Your task to perform on an android device: Show me popular videos on Youtube Image 0: 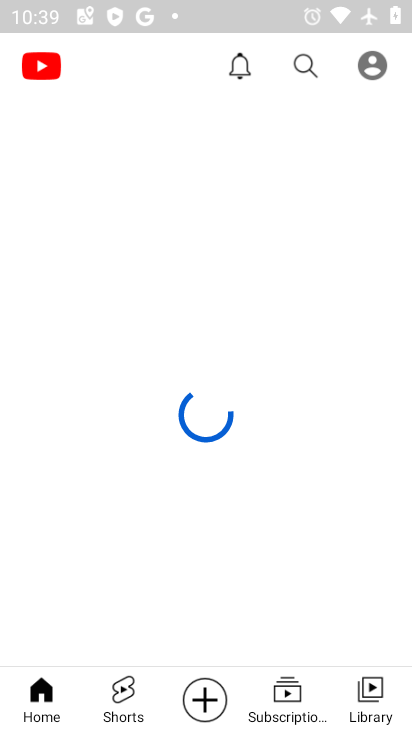
Step 0: press home button
Your task to perform on an android device: Show me popular videos on Youtube Image 1: 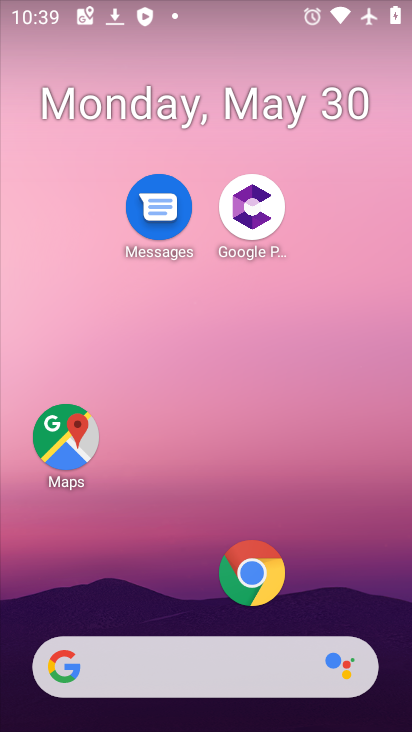
Step 1: drag from (188, 589) to (295, 62)
Your task to perform on an android device: Show me popular videos on Youtube Image 2: 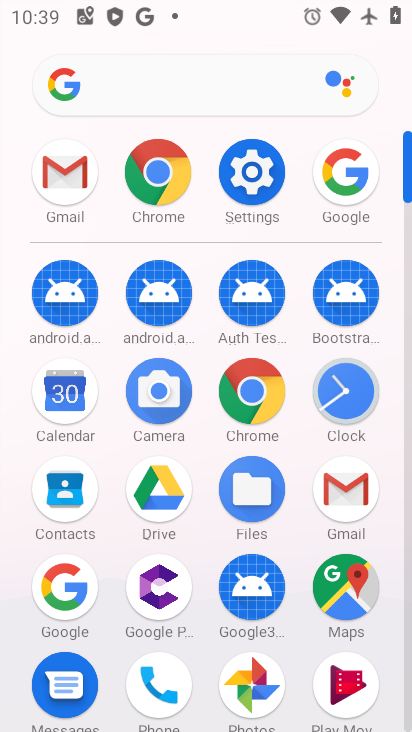
Step 2: drag from (235, 548) to (332, 197)
Your task to perform on an android device: Show me popular videos on Youtube Image 3: 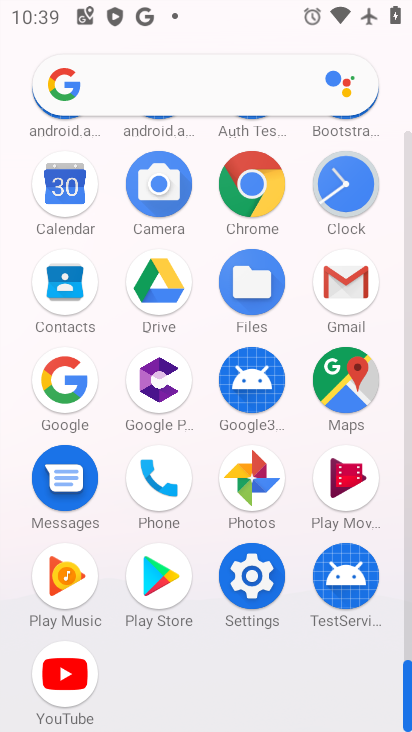
Step 3: click (77, 676)
Your task to perform on an android device: Show me popular videos on Youtube Image 4: 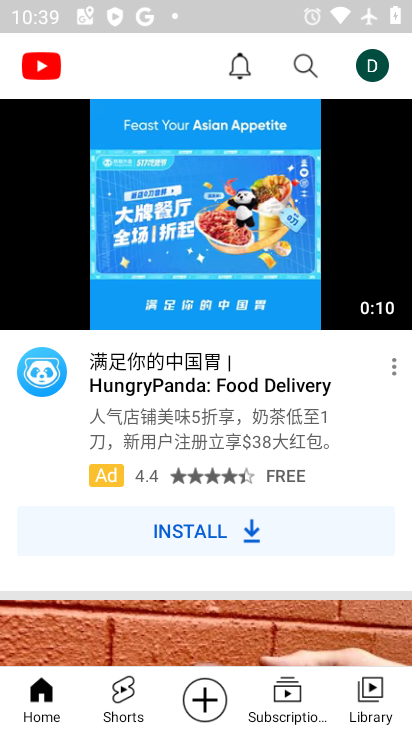
Step 4: task complete